Your task to perform on an android device: Do I have any events today? Image 0: 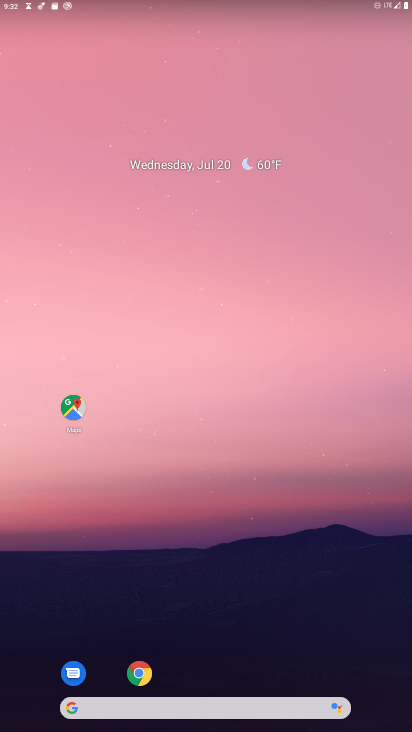
Step 0: drag from (180, 600) to (189, 91)
Your task to perform on an android device: Do I have any events today? Image 1: 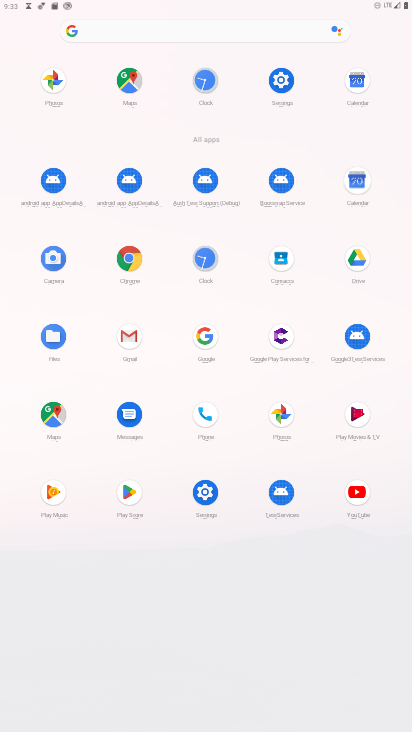
Step 1: click (353, 192)
Your task to perform on an android device: Do I have any events today? Image 2: 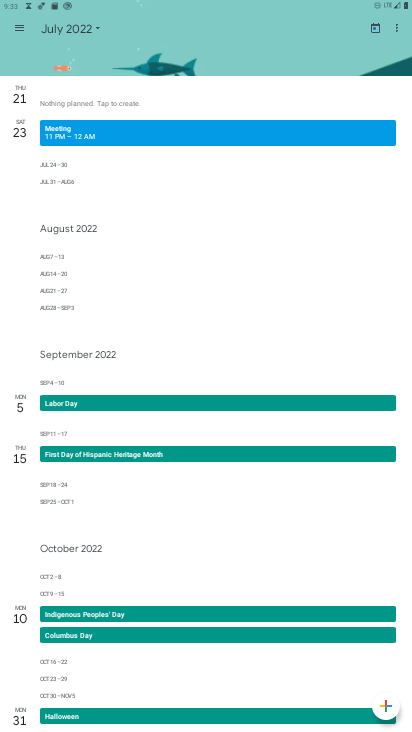
Step 2: click (73, 19)
Your task to perform on an android device: Do I have any events today? Image 3: 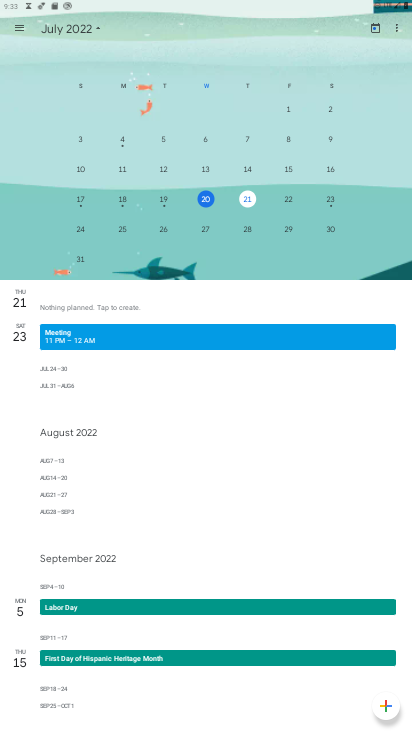
Step 3: click (73, 19)
Your task to perform on an android device: Do I have any events today? Image 4: 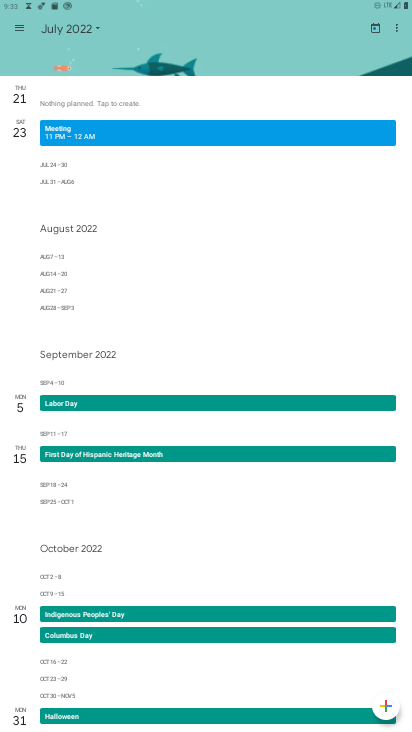
Step 4: click (73, 29)
Your task to perform on an android device: Do I have any events today? Image 5: 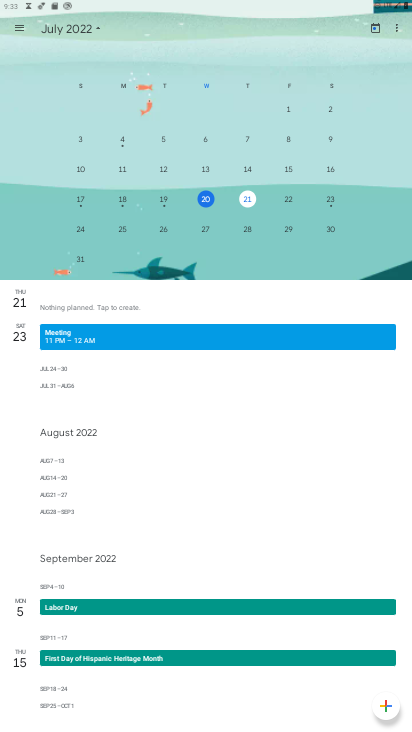
Step 5: click (201, 198)
Your task to perform on an android device: Do I have any events today? Image 6: 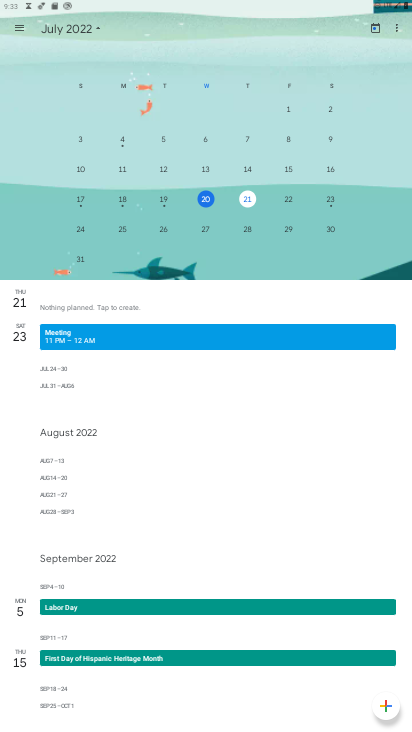
Step 6: click (201, 198)
Your task to perform on an android device: Do I have any events today? Image 7: 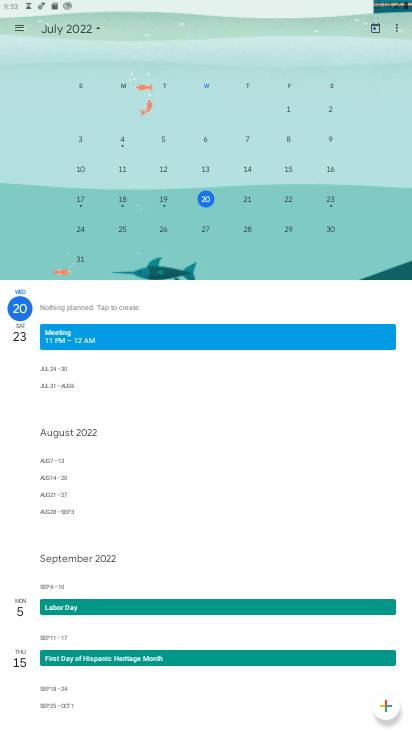
Step 7: task complete